Your task to perform on an android device: change the clock style Image 0: 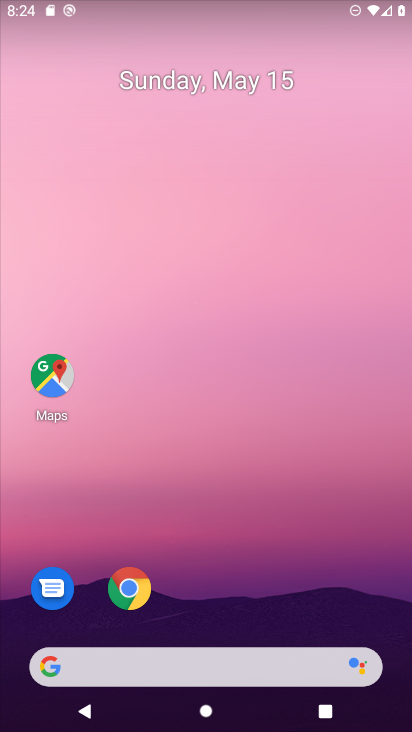
Step 0: drag from (205, 618) to (223, 69)
Your task to perform on an android device: change the clock style Image 1: 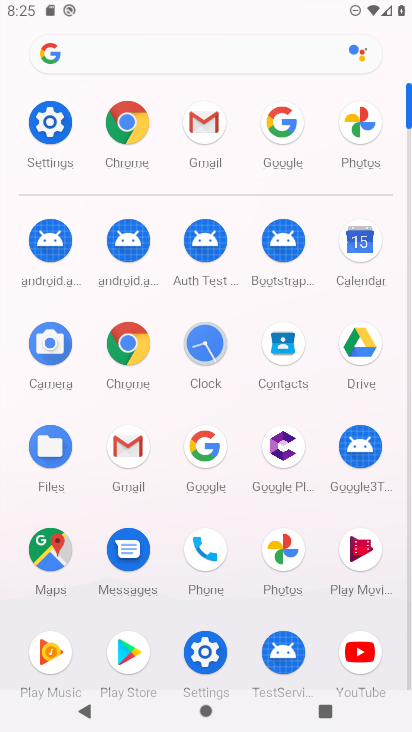
Step 1: click (202, 335)
Your task to perform on an android device: change the clock style Image 2: 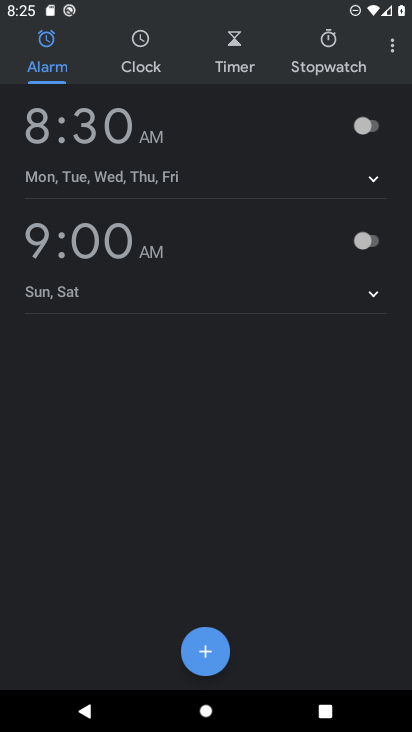
Step 2: click (389, 40)
Your task to perform on an android device: change the clock style Image 3: 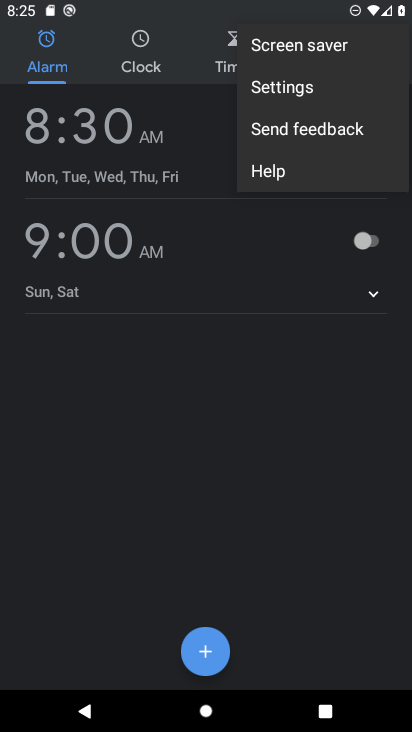
Step 3: click (319, 89)
Your task to perform on an android device: change the clock style Image 4: 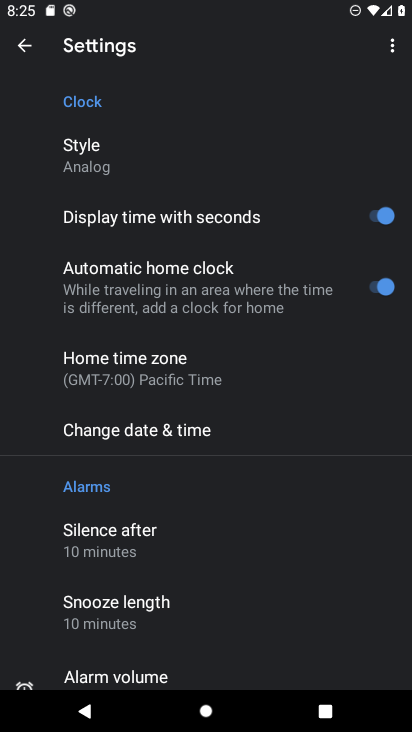
Step 4: click (115, 152)
Your task to perform on an android device: change the clock style Image 5: 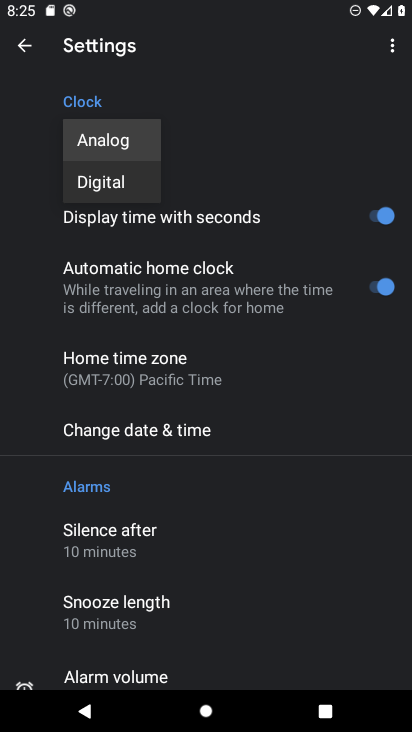
Step 5: click (126, 185)
Your task to perform on an android device: change the clock style Image 6: 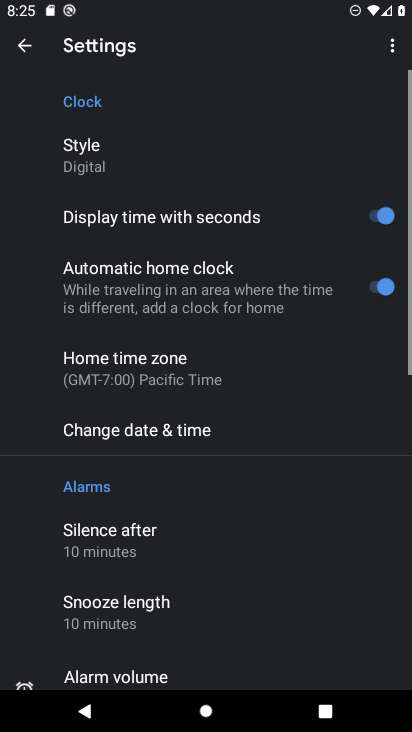
Step 6: task complete